Your task to perform on an android device: open a bookmark in the chrome app Image 0: 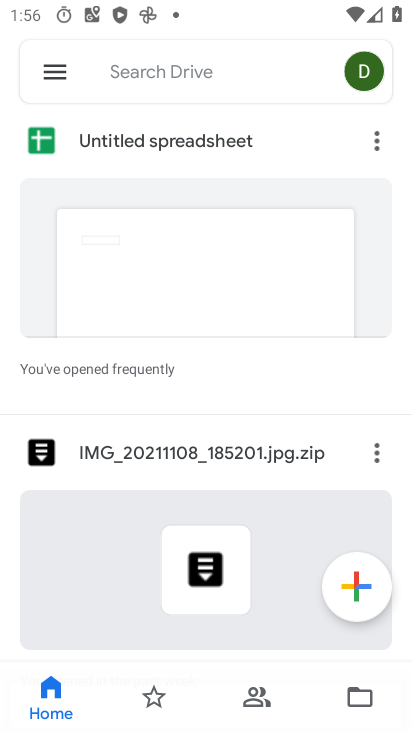
Step 0: press home button
Your task to perform on an android device: open a bookmark in the chrome app Image 1: 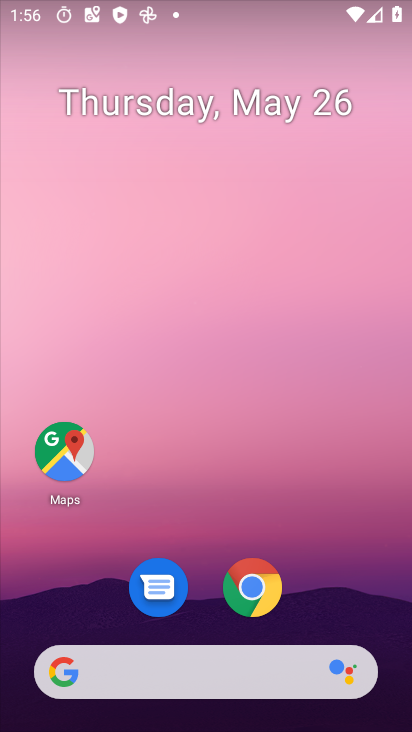
Step 1: drag from (377, 613) to (376, 237)
Your task to perform on an android device: open a bookmark in the chrome app Image 2: 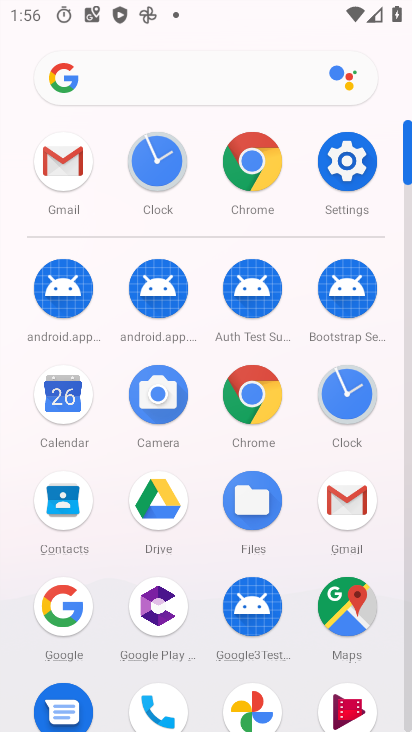
Step 2: click (254, 401)
Your task to perform on an android device: open a bookmark in the chrome app Image 3: 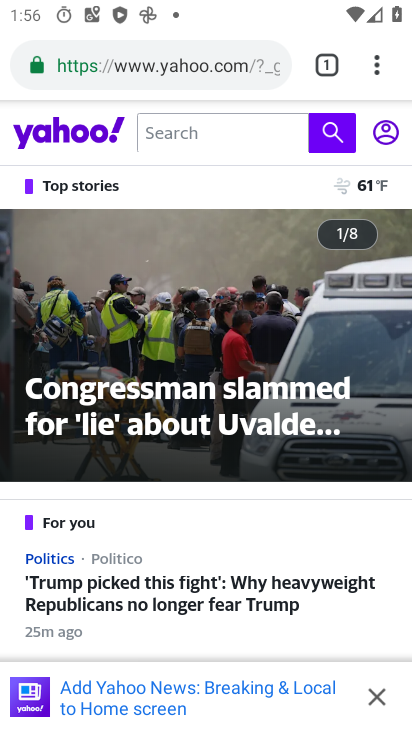
Step 3: click (378, 64)
Your task to perform on an android device: open a bookmark in the chrome app Image 4: 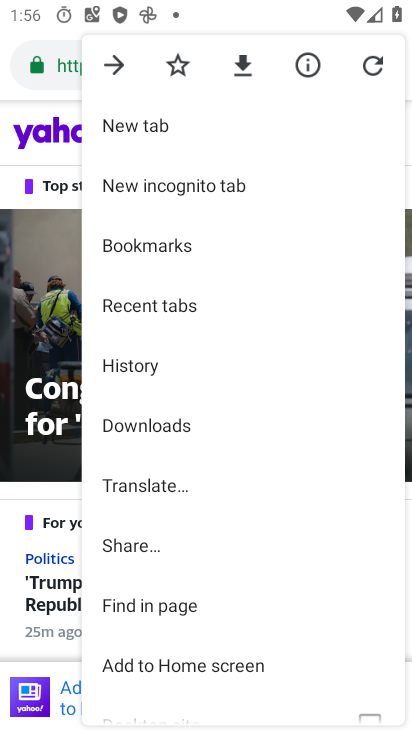
Step 4: click (215, 258)
Your task to perform on an android device: open a bookmark in the chrome app Image 5: 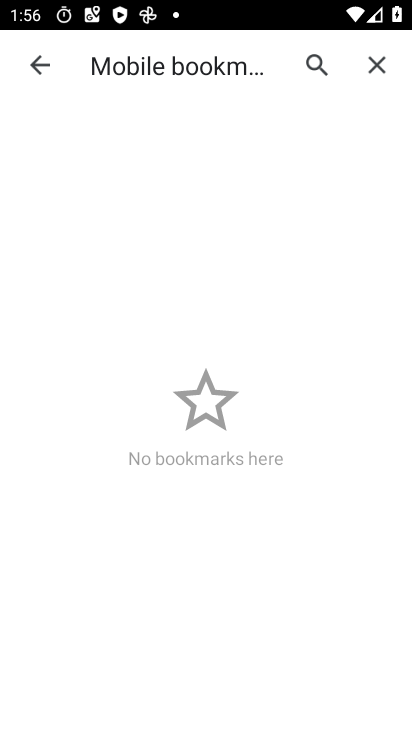
Step 5: task complete